Your task to perform on an android device: Open calendar and show me the first week of next month Image 0: 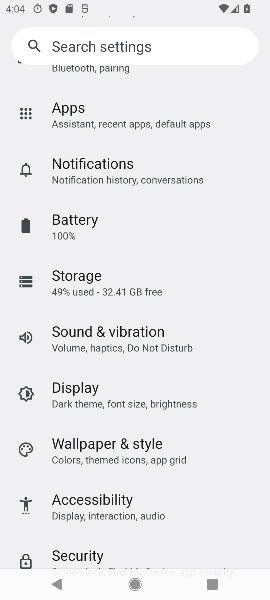
Step 0: press back button
Your task to perform on an android device: Open calendar and show me the first week of next month Image 1: 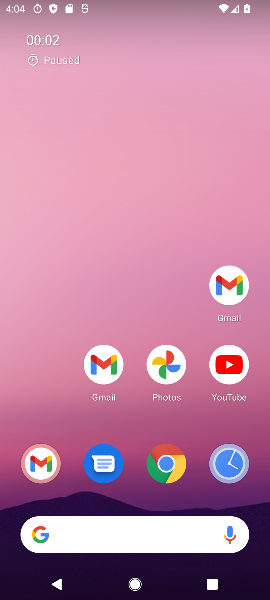
Step 1: drag from (175, 568) to (155, 221)
Your task to perform on an android device: Open calendar and show me the first week of next month Image 2: 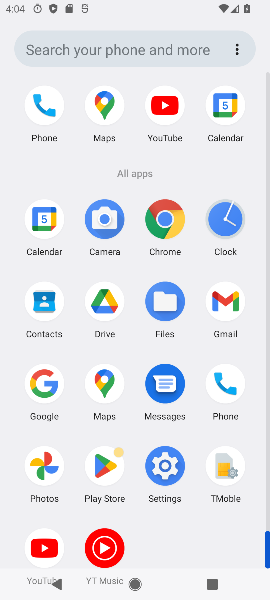
Step 2: click (44, 221)
Your task to perform on an android device: Open calendar and show me the first week of next month Image 3: 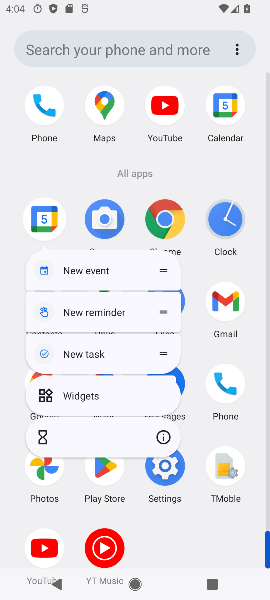
Step 3: click (44, 221)
Your task to perform on an android device: Open calendar and show me the first week of next month Image 4: 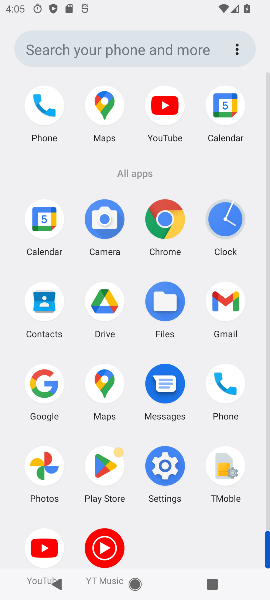
Step 4: click (49, 219)
Your task to perform on an android device: Open calendar and show me the first week of next month Image 5: 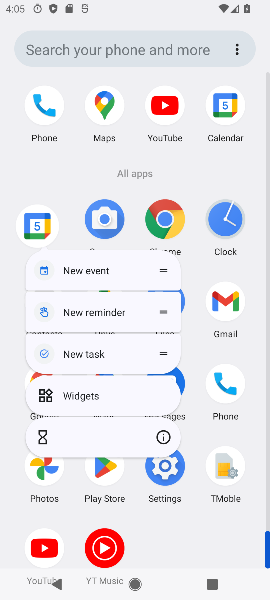
Step 5: click (42, 226)
Your task to perform on an android device: Open calendar and show me the first week of next month Image 6: 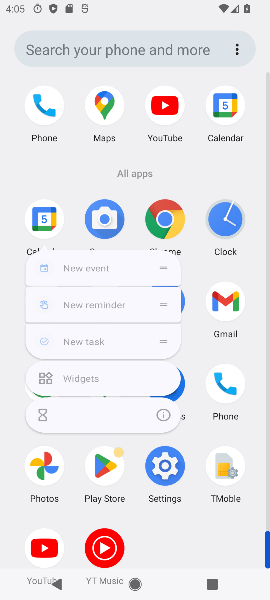
Step 6: click (42, 226)
Your task to perform on an android device: Open calendar and show me the first week of next month Image 7: 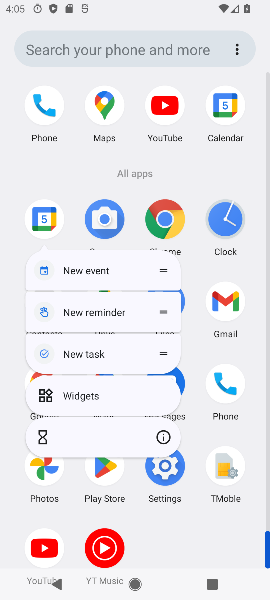
Step 7: click (87, 268)
Your task to perform on an android device: Open calendar and show me the first week of next month Image 8: 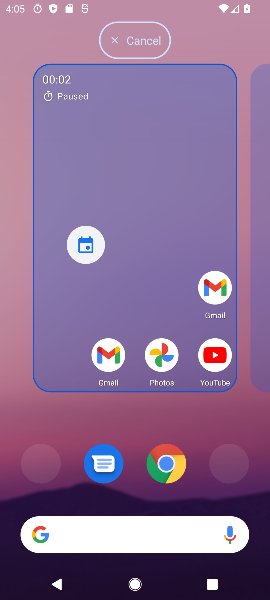
Step 8: click (87, 268)
Your task to perform on an android device: Open calendar and show me the first week of next month Image 9: 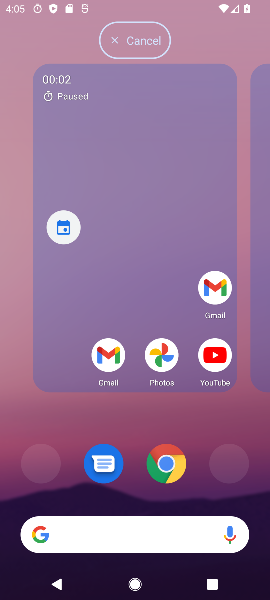
Step 9: click (87, 268)
Your task to perform on an android device: Open calendar and show me the first week of next month Image 10: 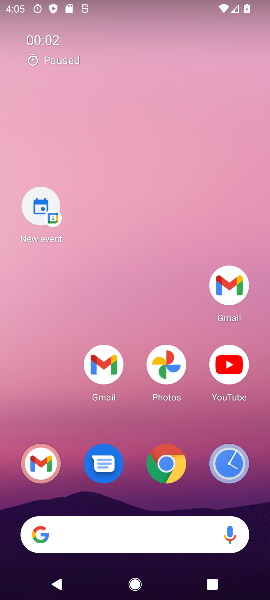
Step 10: drag from (132, 505) to (166, 97)
Your task to perform on an android device: Open calendar and show me the first week of next month Image 11: 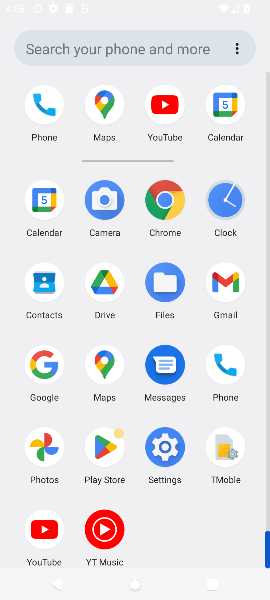
Step 11: drag from (169, 445) to (158, 62)
Your task to perform on an android device: Open calendar and show me the first week of next month Image 12: 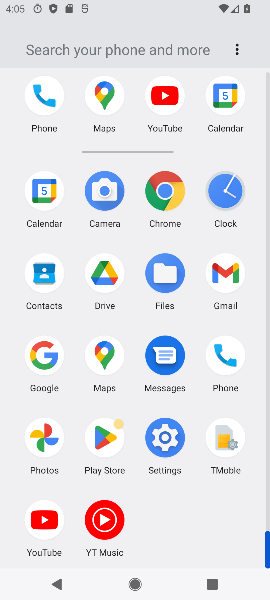
Step 12: click (39, 191)
Your task to perform on an android device: Open calendar and show me the first week of next month Image 13: 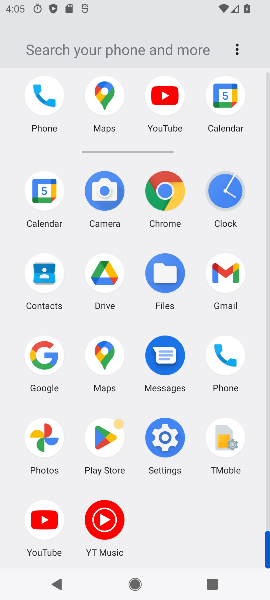
Step 13: click (39, 191)
Your task to perform on an android device: Open calendar and show me the first week of next month Image 14: 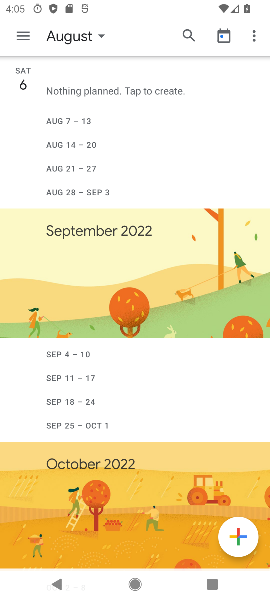
Step 14: click (98, 40)
Your task to perform on an android device: Open calendar and show me the first week of next month Image 15: 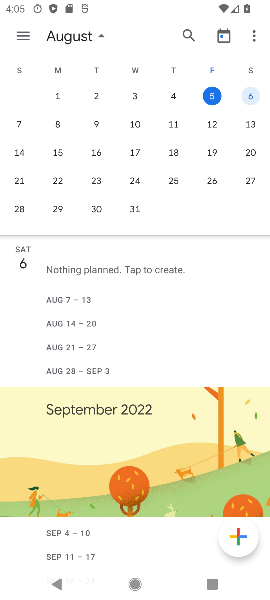
Step 15: task complete